Your task to perform on an android device: Go to battery settings Image 0: 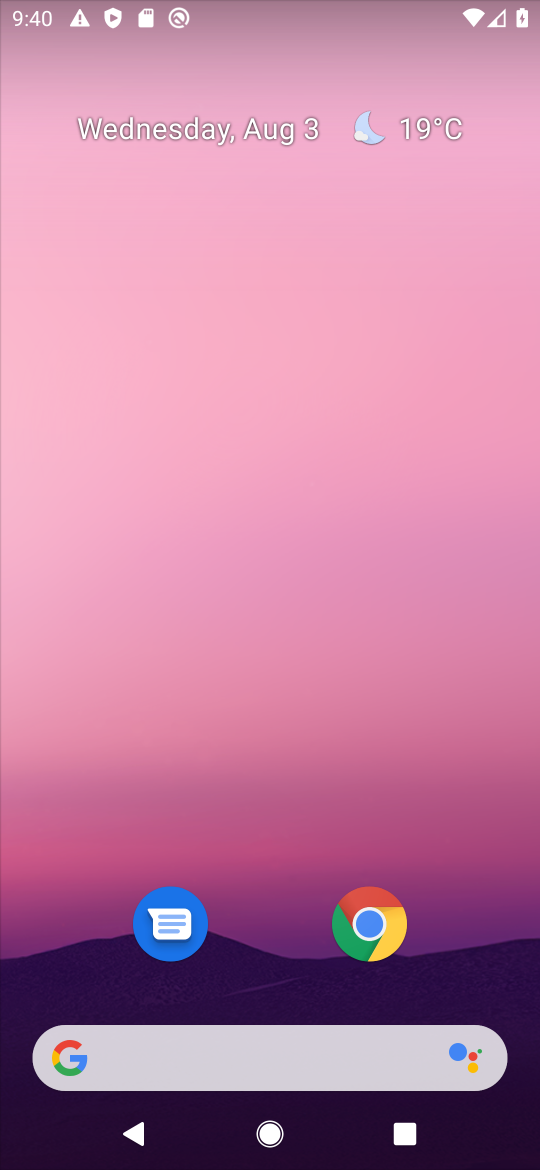
Step 0: press home button
Your task to perform on an android device: Go to battery settings Image 1: 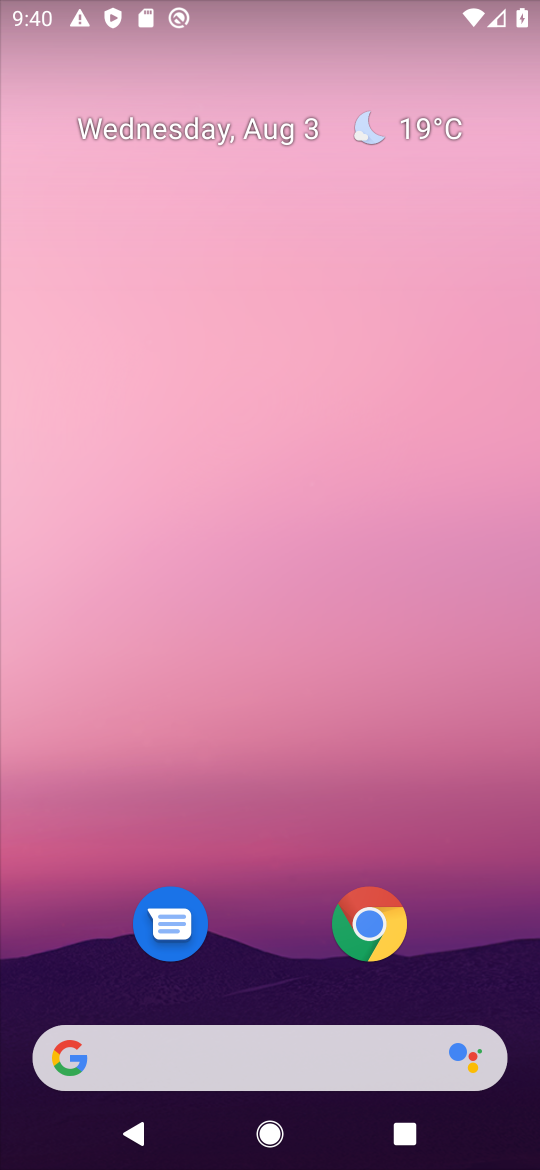
Step 1: drag from (289, 890) to (325, 2)
Your task to perform on an android device: Go to battery settings Image 2: 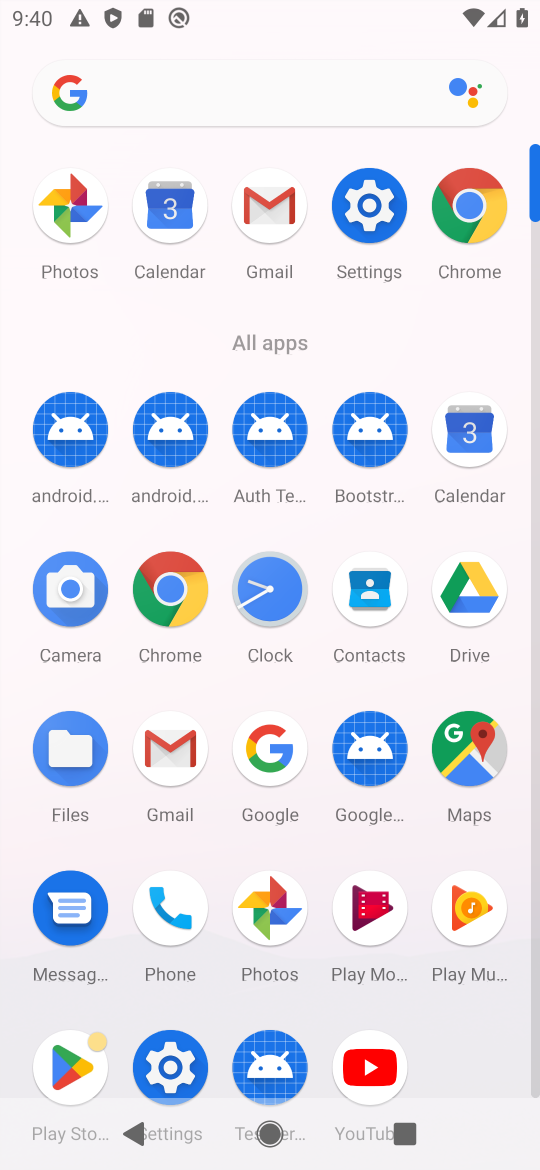
Step 2: click (371, 196)
Your task to perform on an android device: Go to battery settings Image 3: 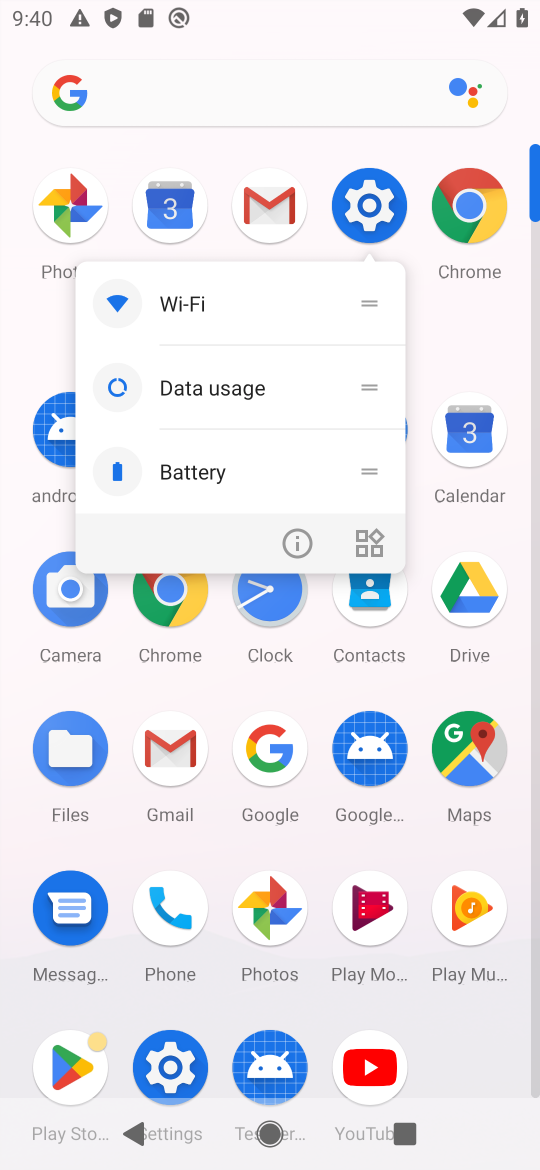
Step 3: click (371, 196)
Your task to perform on an android device: Go to battery settings Image 4: 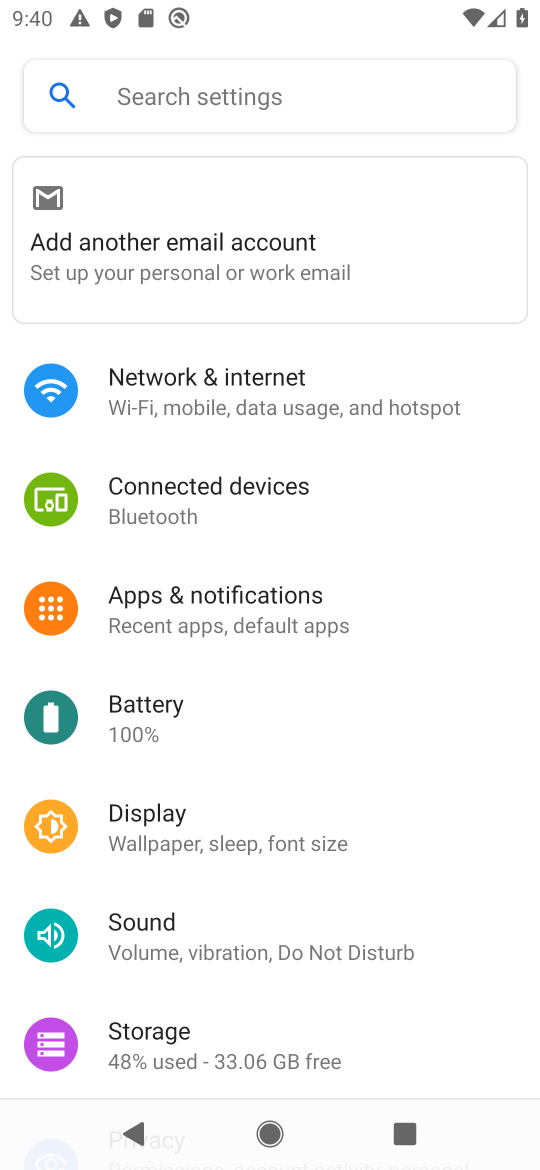
Step 4: click (215, 713)
Your task to perform on an android device: Go to battery settings Image 5: 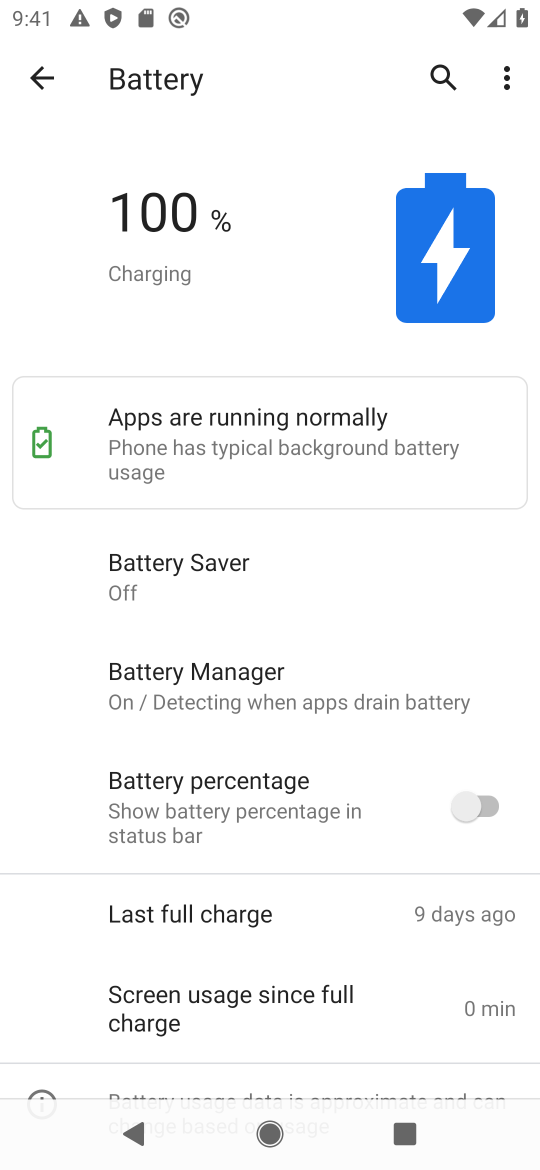
Step 5: task complete